Your task to perform on an android device: allow cookies in the chrome app Image 0: 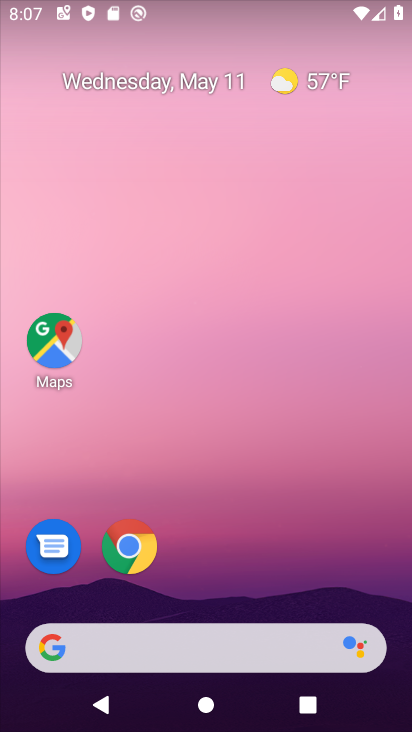
Step 0: click (141, 552)
Your task to perform on an android device: allow cookies in the chrome app Image 1: 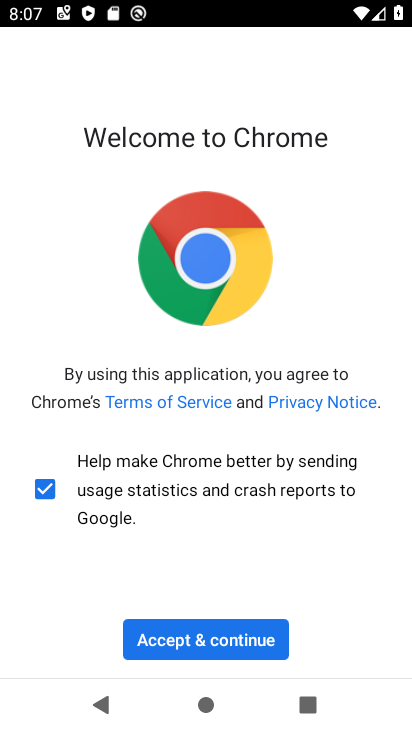
Step 1: click (165, 633)
Your task to perform on an android device: allow cookies in the chrome app Image 2: 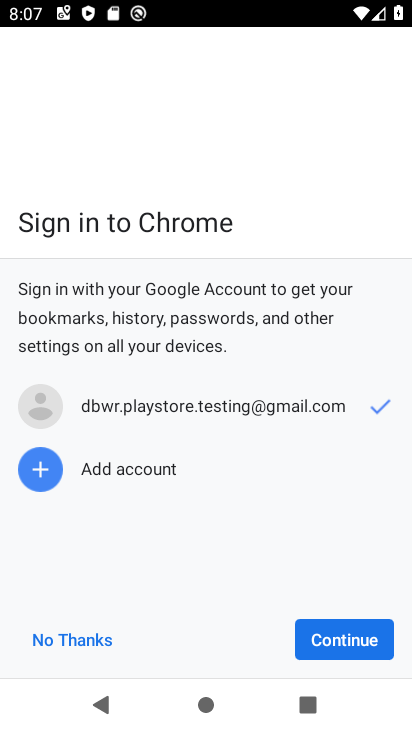
Step 2: click (321, 646)
Your task to perform on an android device: allow cookies in the chrome app Image 3: 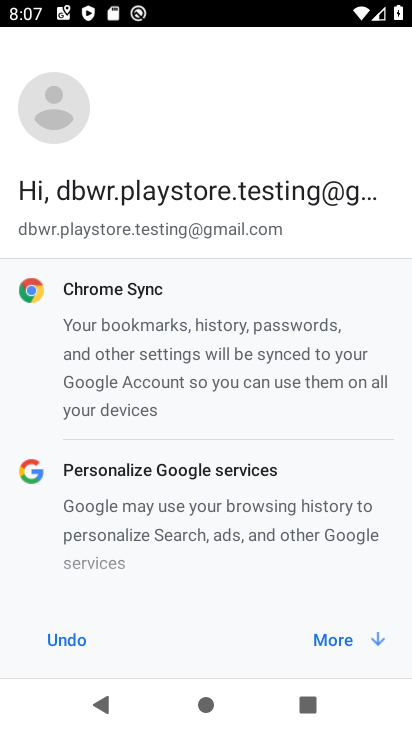
Step 3: click (320, 640)
Your task to perform on an android device: allow cookies in the chrome app Image 4: 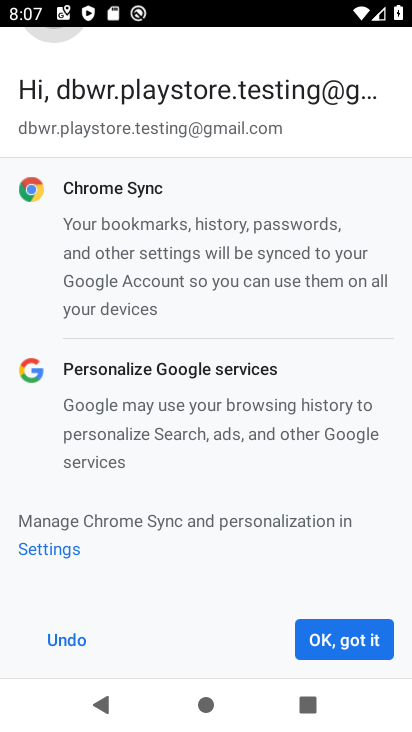
Step 4: click (320, 640)
Your task to perform on an android device: allow cookies in the chrome app Image 5: 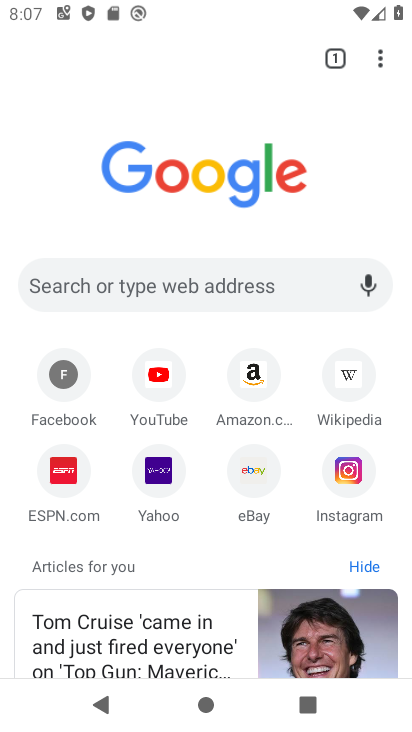
Step 5: click (375, 55)
Your task to perform on an android device: allow cookies in the chrome app Image 6: 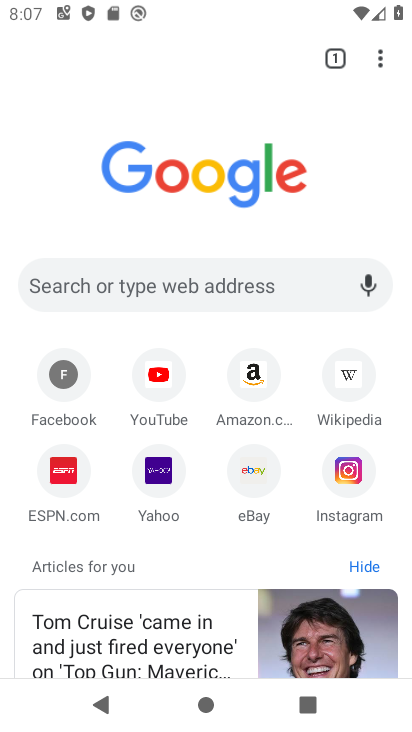
Step 6: click (373, 58)
Your task to perform on an android device: allow cookies in the chrome app Image 7: 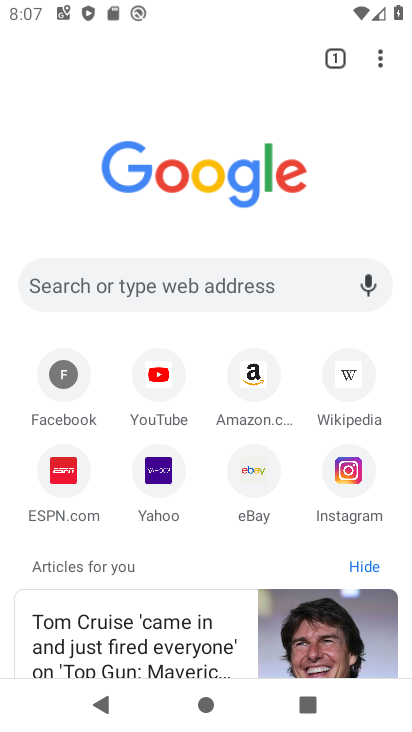
Step 7: drag from (379, 53) to (193, 481)
Your task to perform on an android device: allow cookies in the chrome app Image 8: 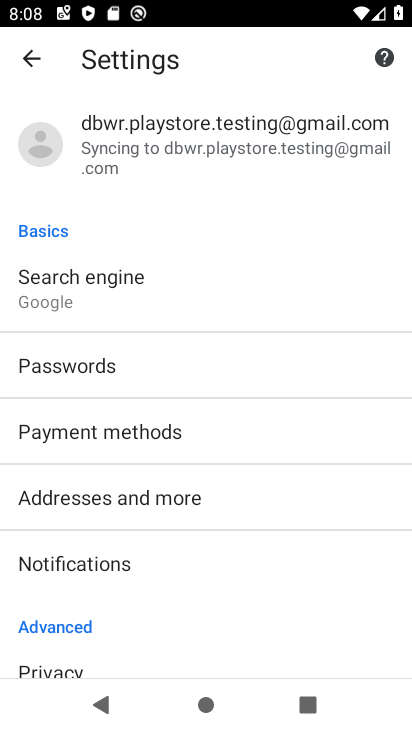
Step 8: drag from (183, 620) to (233, 449)
Your task to perform on an android device: allow cookies in the chrome app Image 9: 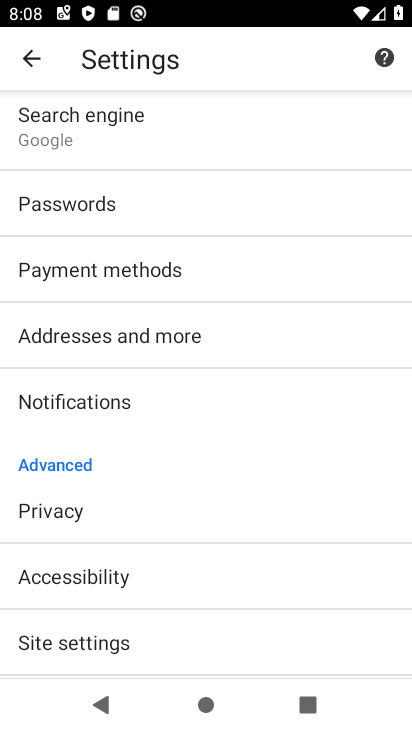
Step 9: click (152, 636)
Your task to perform on an android device: allow cookies in the chrome app Image 10: 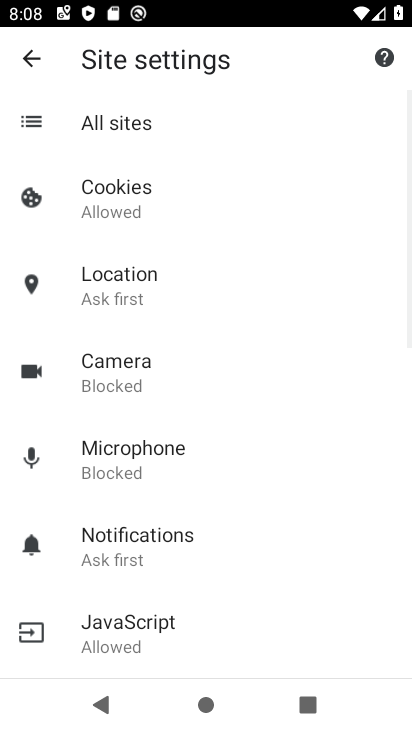
Step 10: click (134, 209)
Your task to perform on an android device: allow cookies in the chrome app Image 11: 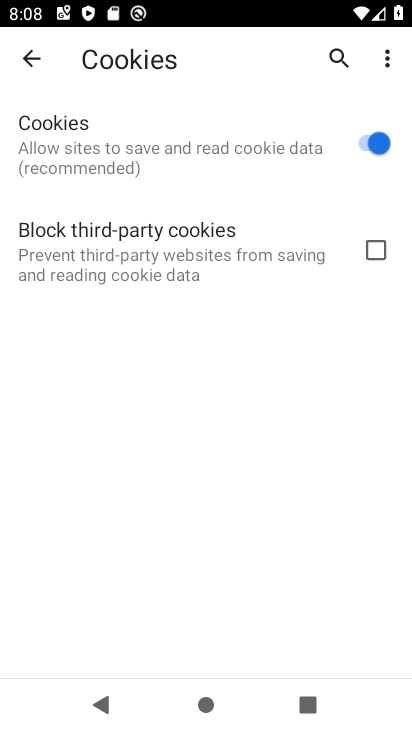
Step 11: task complete